Your task to perform on an android device: change the clock display to show seconds Image 0: 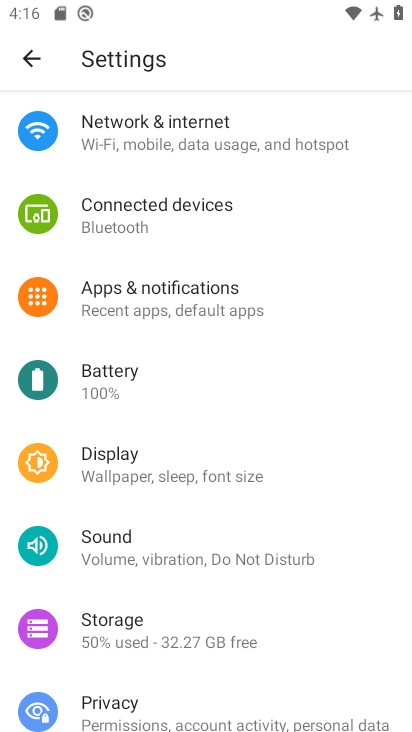
Step 0: click (192, 301)
Your task to perform on an android device: change the clock display to show seconds Image 1: 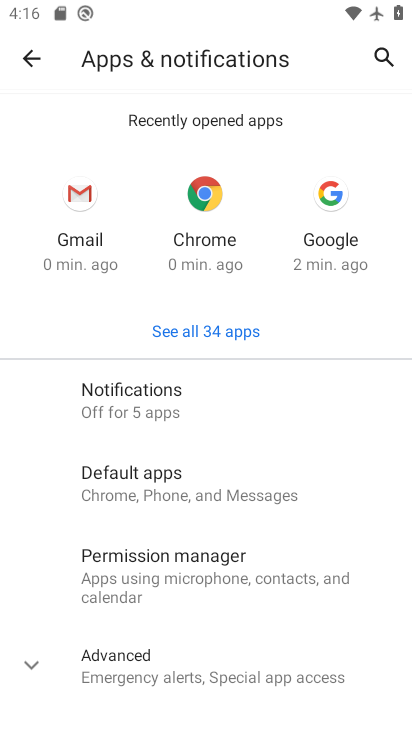
Step 1: press home button
Your task to perform on an android device: change the clock display to show seconds Image 2: 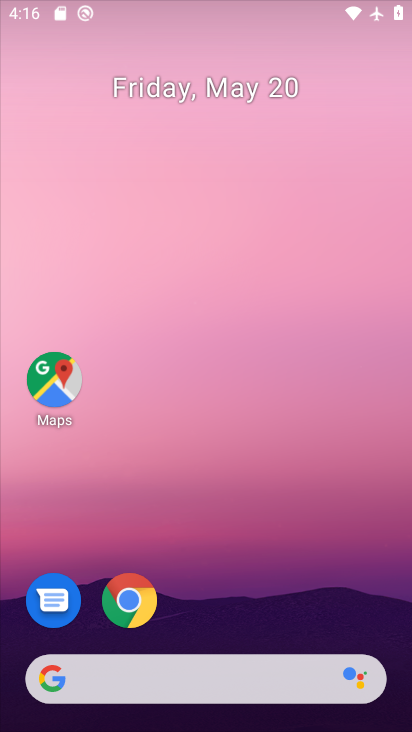
Step 2: drag from (282, 540) to (230, 72)
Your task to perform on an android device: change the clock display to show seconds Image 3: 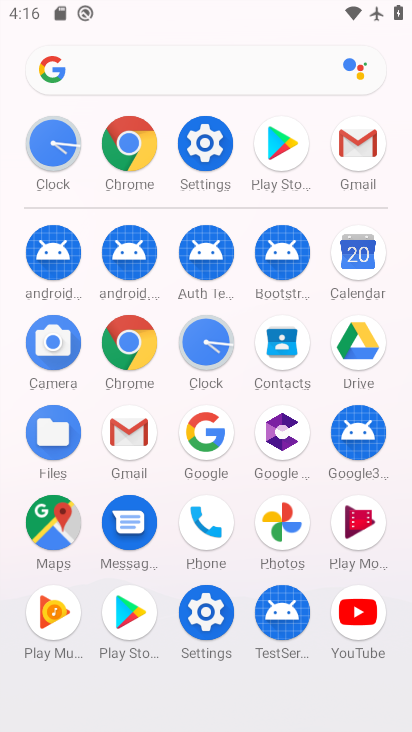
Step 3: click (206, 345)
Your task to perform on an android device: change the clock display to show seconds Image 4: 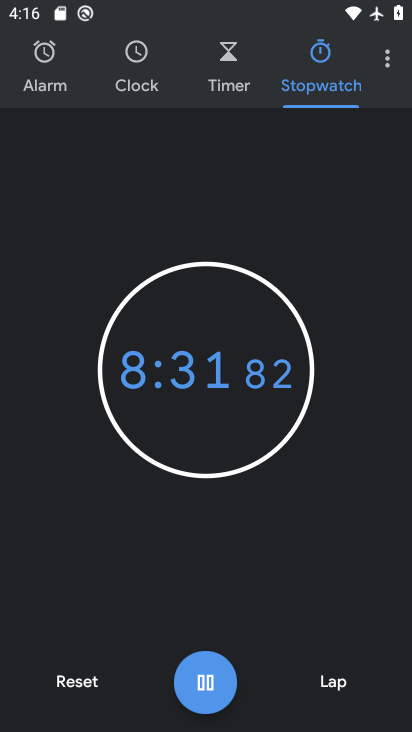
Step 4: click (382, 53)
Your task to perform on an android device: change the clock display to show seconds Image 5: 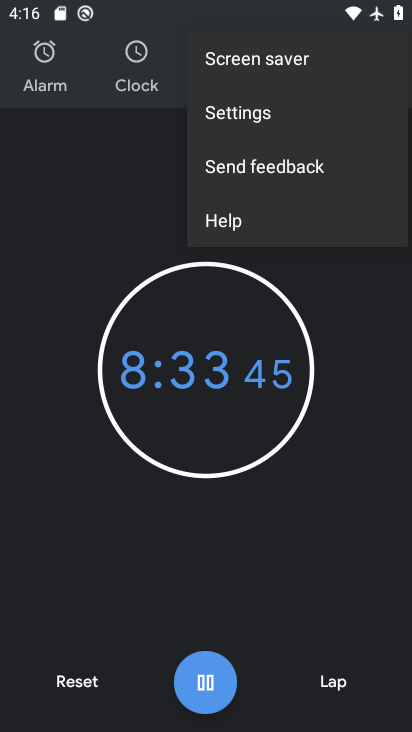
Step 5: click (263, 121)
Your task to perform on an android device: change the clock display to show seconds Image 6: 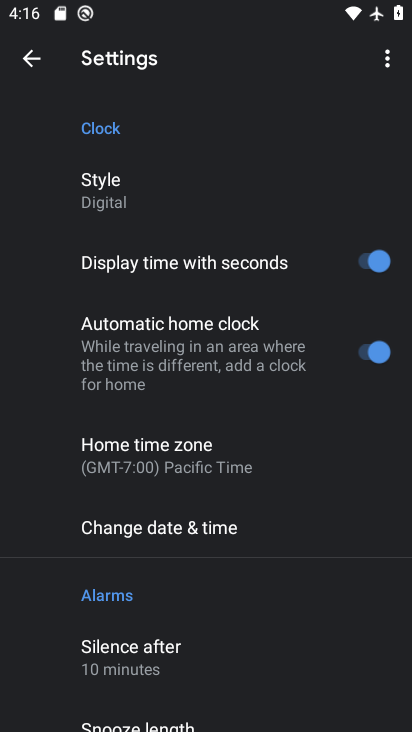
Step 6: task complete